Your task to perform on an android device: turn off smart reply in the gmail app Image 0: 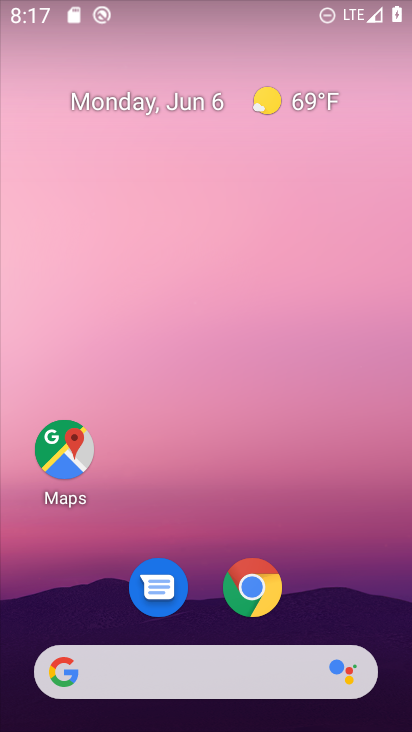
Step 0: drag from (356, 573) to (269, 109)
Your task to perform on an android device: turn off smart reply in the gmail app Image 1: 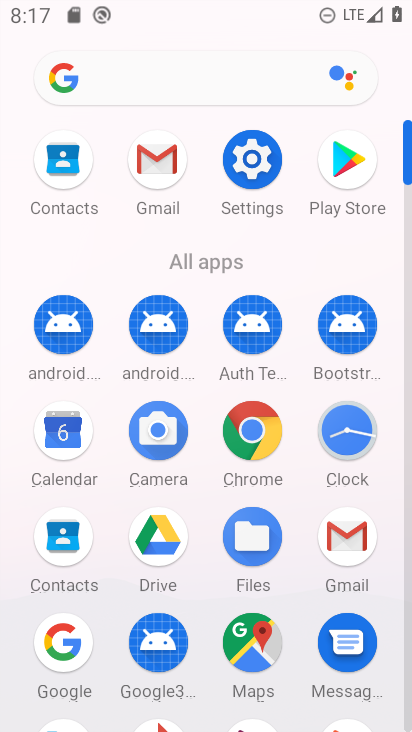
Step 1: click (172, 165)
Your task to perform on an android device: turn off smart reply in the gmail app Image 2: 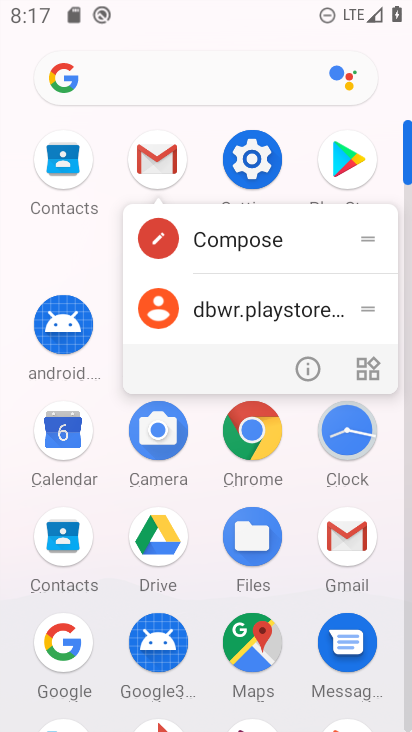
Step 2: click (172, 166)
Your task to perform on an android device: turn off smart reply in the gmail app Image 3: 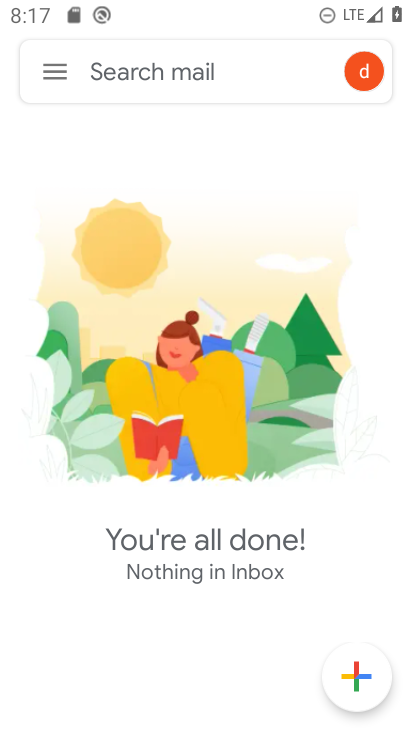
Step 3: click (42, 64)
Your task to perform on an android device: turn off smart reply in the gmail app Image 4: 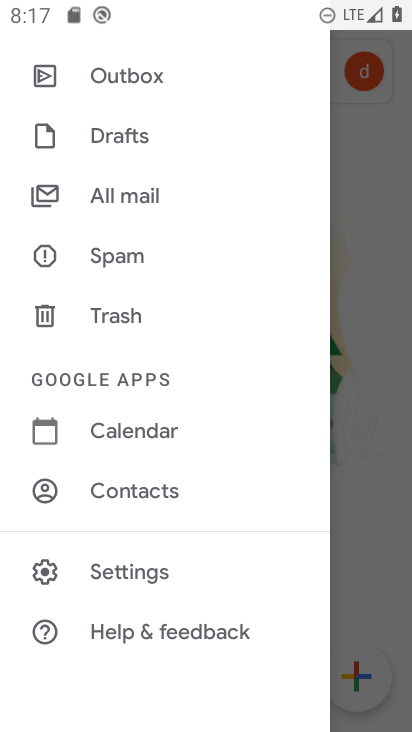
Step 4: click (130, 583)
Your task to perform on an android device: turn off smart reply in the gmail app Image 5: 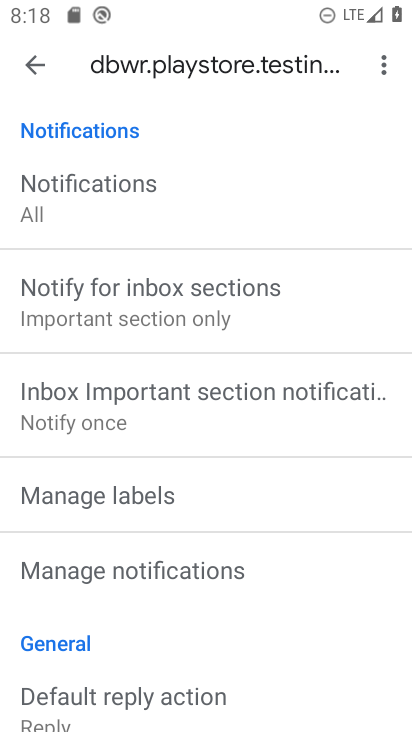
Step 5: drag from (228, 532) to (265, 257)
Your task to perform on an android device: turn off smart reply in the gmail app Image 6: 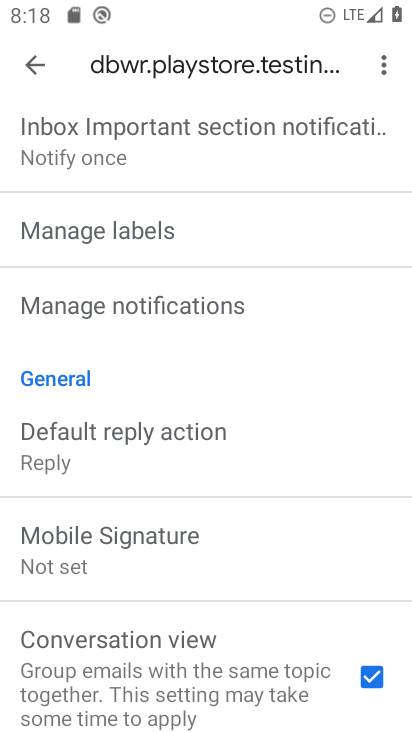
Step 6: drag from (215, 495) to (313, 90)
Your task to perform on an android device: turn off smart reply in the gmail app Image 7: 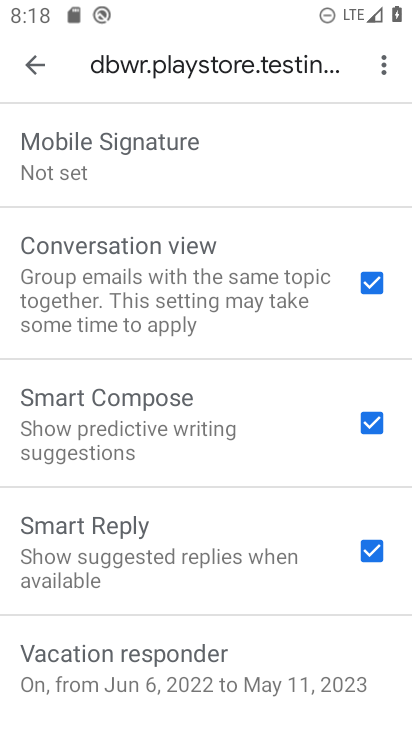
Step 7: click (374, 553)
Your task to perform on an android device: turn off smart reply in the gmail app Image 8: 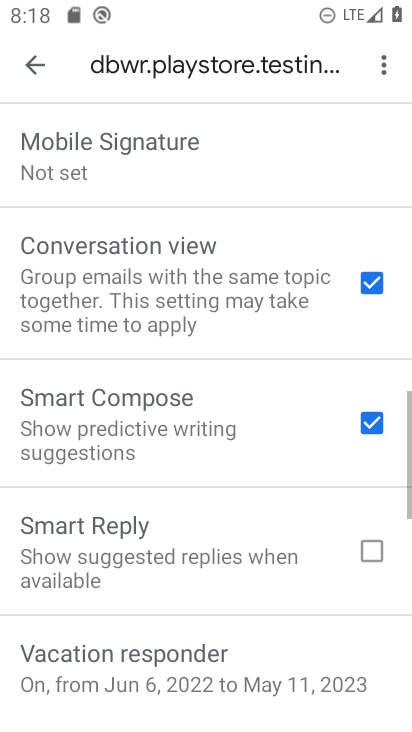
Step 8: task complete